Your task to perform on an android device: Open Yahoo.com Image 0: 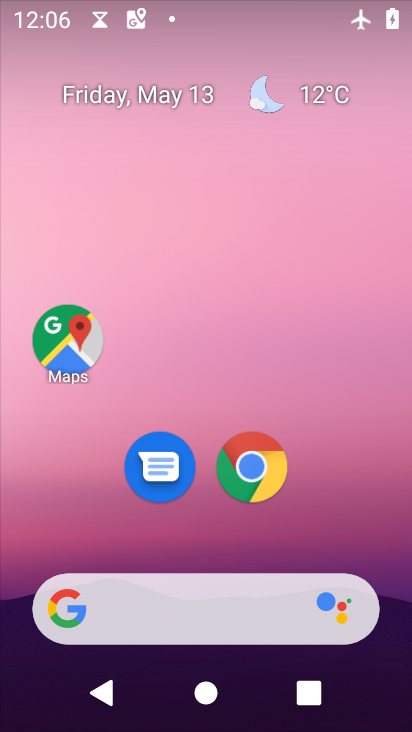
Step 0: click (254, 466)
Your task to perform on an android device: Open Yahoo.com Image 1: 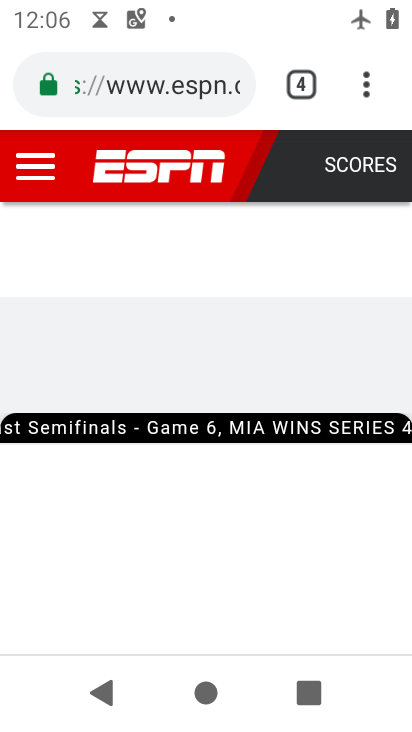
Step 1: click (292, 81)
Your task to perform on an android device: Open Yahoo.com Image 2: 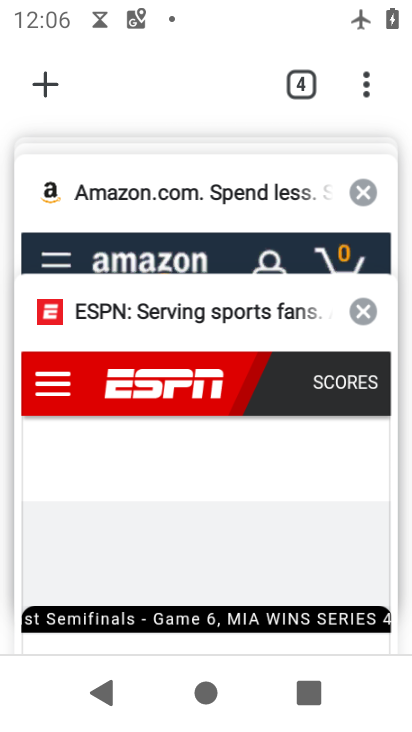
Step 2: drag from (186, 202) to (174, 612)
Your task to perform on an android device: Open Yahoo.com Image 3: 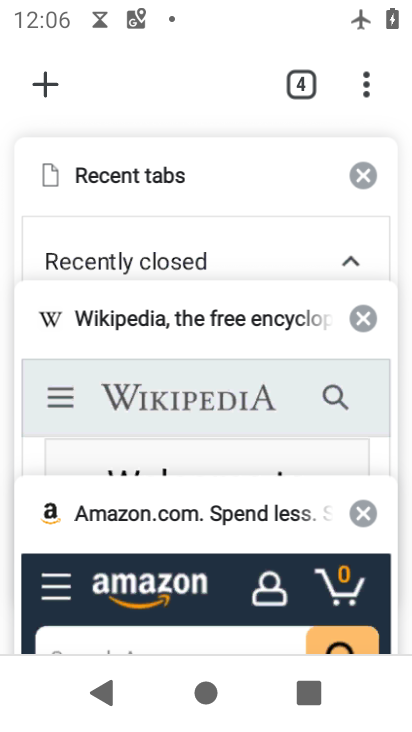
Step 3: drag from (153, 528) to (140, 218)
Your task to perform on an android device: Open Yahoo.com Image 4: 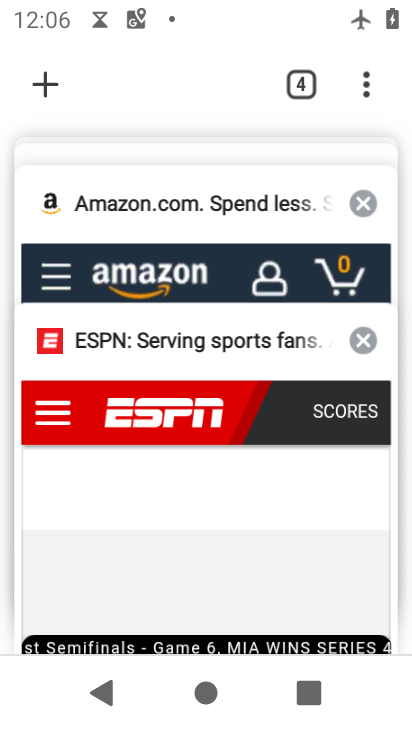
Step 4: drag from (150, 193) to (186, 569)
Your task to perform on an android device: Open Yahoo.com Image 5: 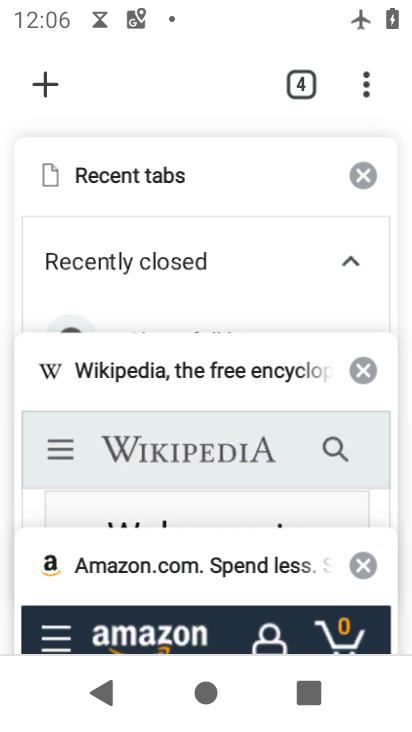
Step 5: click (138, 178)
Your task to perform on an android device: Open Yahoo.com Image 6: 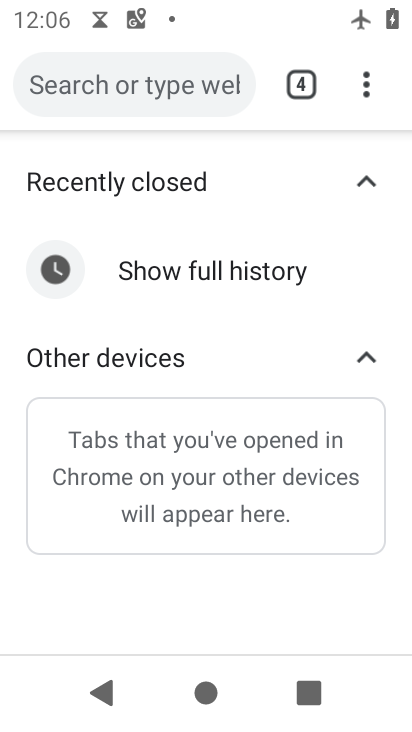
Step 6: press back button
Your task to perform on an android device: Open Yahoo.com Image 7: 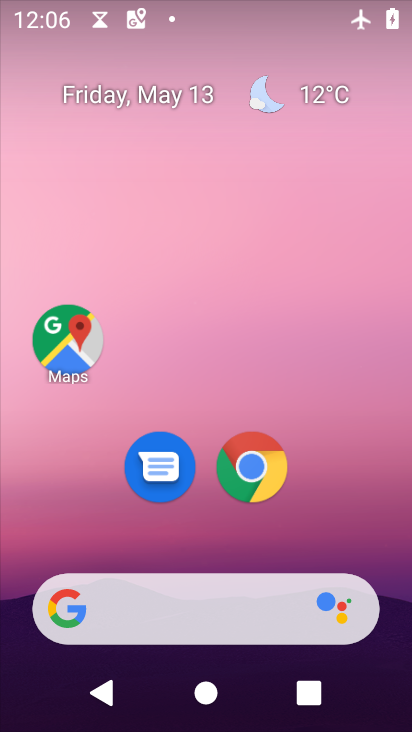
Step 7: click (279, 484)
Your task to perform on an android device: Open Yahoo.com Image 8: 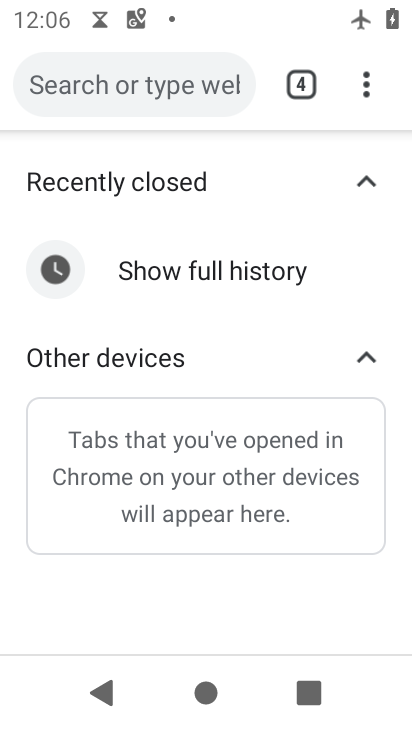
Step 8: click (303, 76)
Your task to perform on an android device: Open Yahoo.com Image 9: 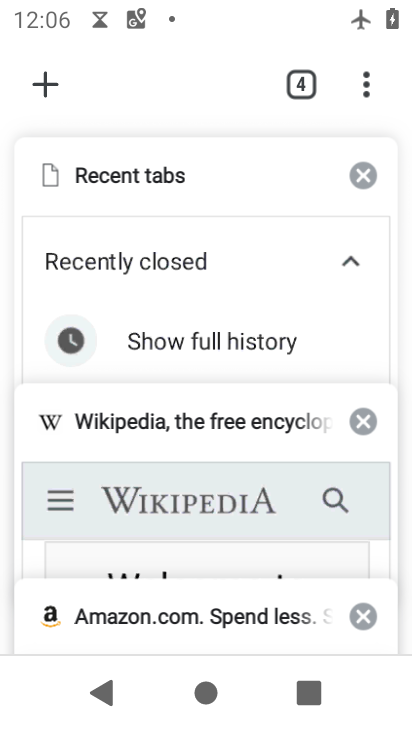
Step 9: click (34, 82)
Your task to perform on an android device: Open Yahoo.com Image 10: 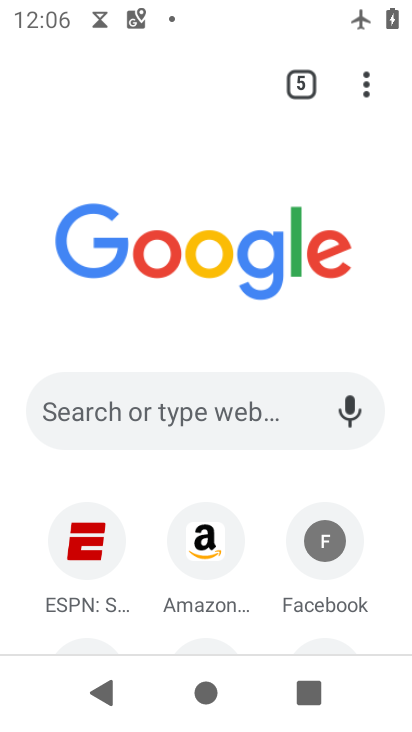
Step 10: drag from (279, 566) to (245, 171)
Your task to perform on an android device: Open Yahoo.com Image 11: 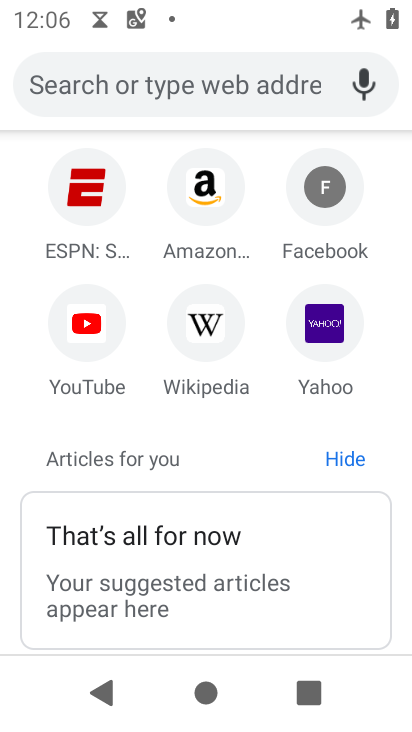
Step 11: click (314, 328)
Your task to perform on an android device: Open Yahoo.com Image 12: 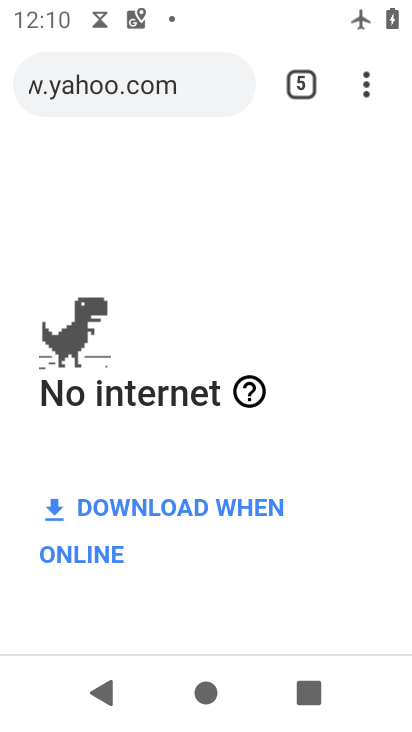
Step 12: task complete